Your task to perform on an android device: remove spam from my inbox in the gmail app Image 0: 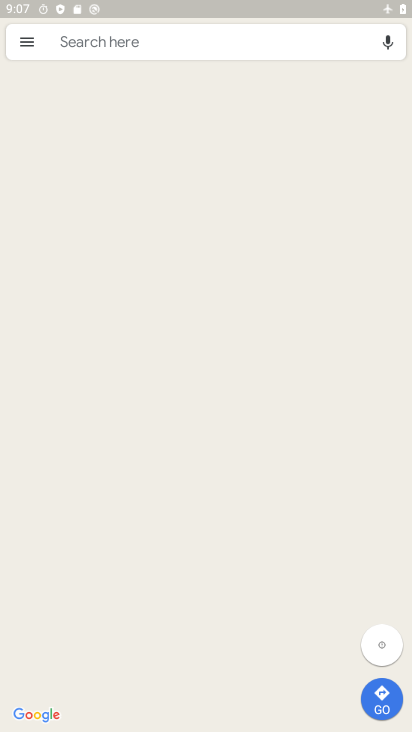
Step 0: press home button
Your task to perform on an android device: remove spam from my inbox in the gmail app Image 1: 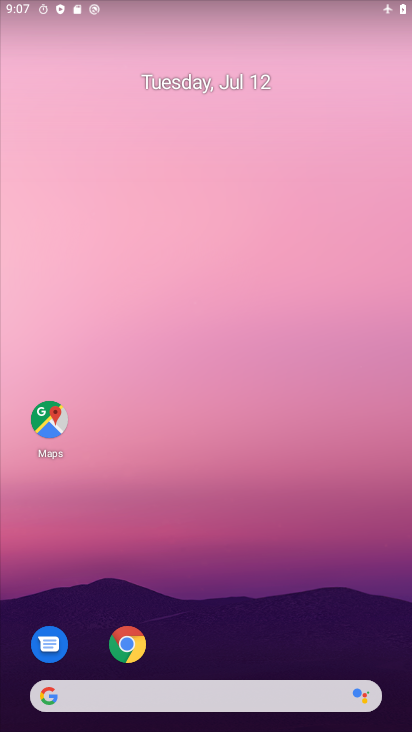
Step 1: drag from (210, 649) to (185, 223)
Your task to perform on an android device: remove spam from my inbox in the gmail app Image 2: 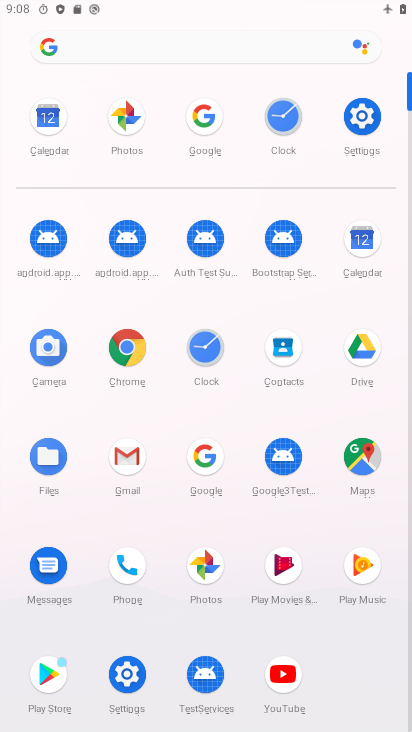
Step 2: click (143, 457)
Your task to perform on an android device: remove spam from my inbox in the gmail app Image 3: 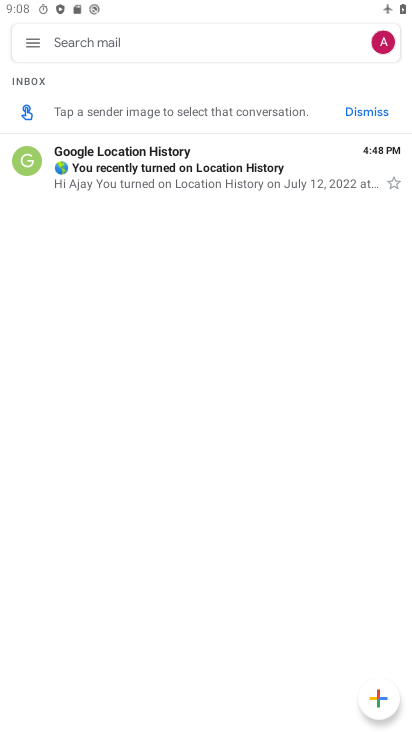
Step 3: click (36, 42)
Your task to perform on an android device: remove spam from my inbox in the gmail app Image 4: 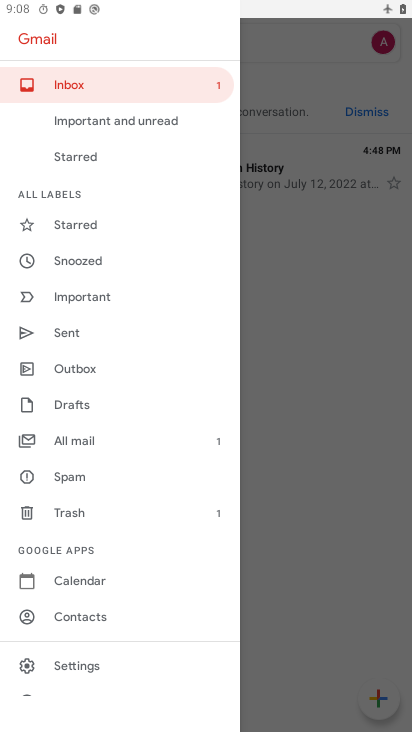
Step 4: click (83, 472)
Your task to perform on an android device: remove spam from my inbox in the gmail app Image 5: 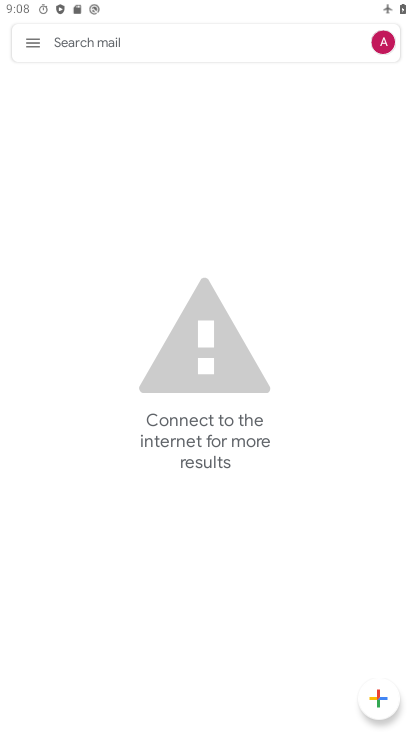
Step 5: task complete